Your task to perform on an android device: Open my contact list Image 0: 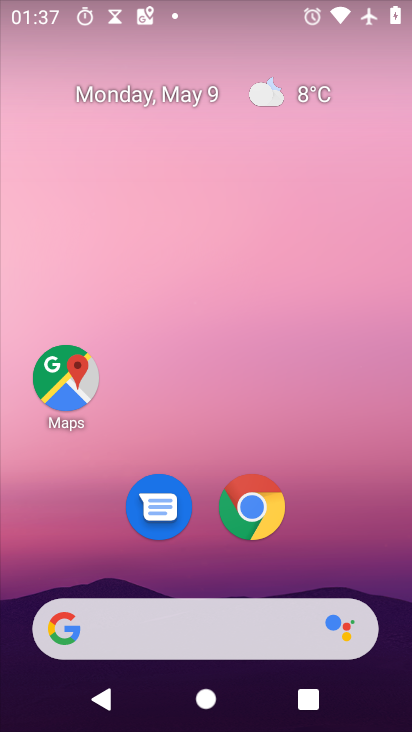
Step 0: drag from (233, 723) to (233, 159)
Your task to perform on an android device: Open my contact list Image 1: 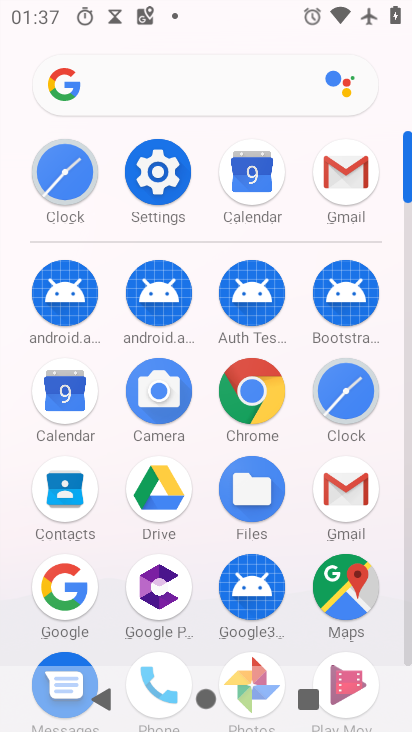
Step 1: click (53, 484)
Your task to perform on an android device: Open my contact list Image 2: 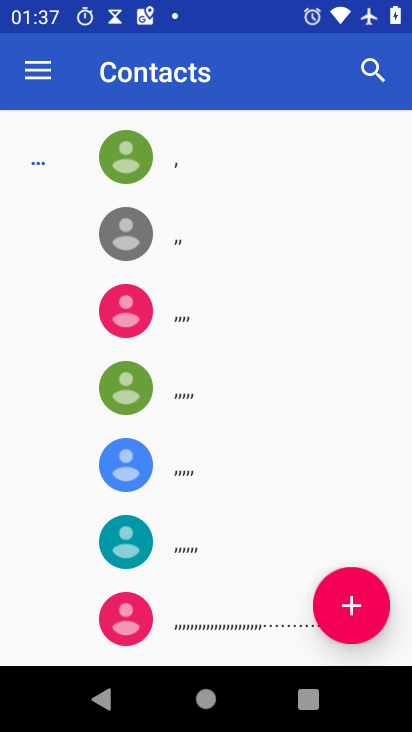
Step 2: task complete